Your task to perform on an android device: What's on my calendar tomorrow? Image 0: 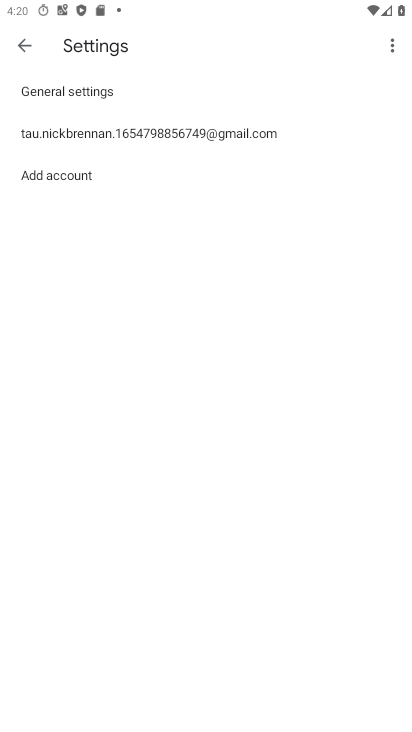
Step 0: press home button
Your task to perform on an android device: What's on my calendar tomorrow? Image 1: 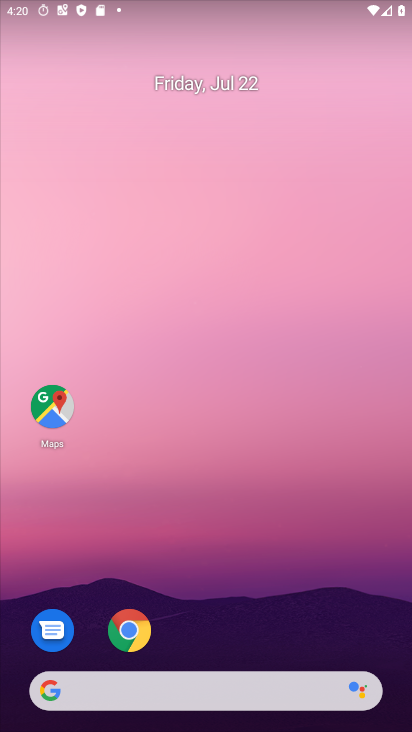
Step 1: drag from (234, 707) to (294, 50)
Your task to perform on an android device: What's on my calendar tomorrow? Image 2: 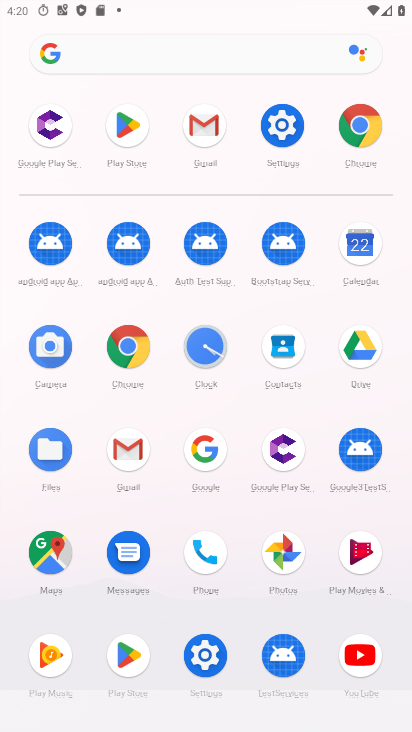
Step 2: click (353, 240)
Your task to perform on an android device: What's on my calendar tomorrow? Image 3: 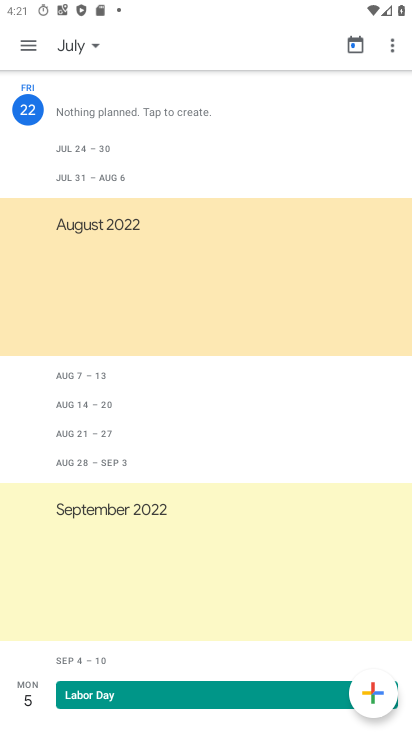
Step 3: click (101, 49)
Your task to perform on an android device: What's on my calendar tomorrow? Image 4: 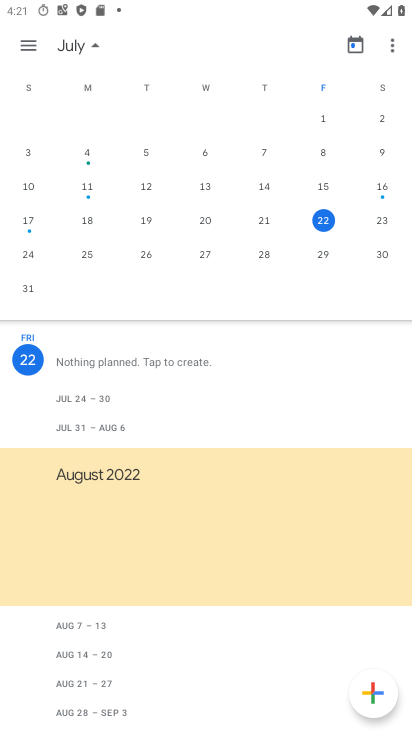
Step 4: click (383, 222)
Your task to perform on an android device: What's on my calendar tomorrow? Image 5: 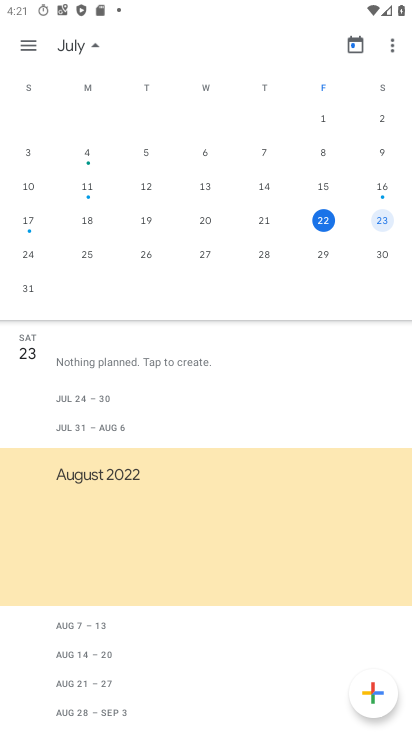
Step 5: task complete